Your task to perform on an android device: Open Amazon Image 0: 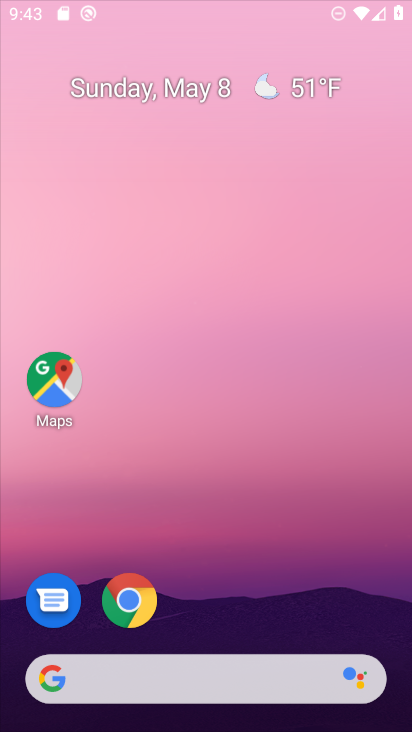
Step 0: drag from (308, 196) to (322, 0)
Your task to perform on an android device: Open Amazon Image 1: 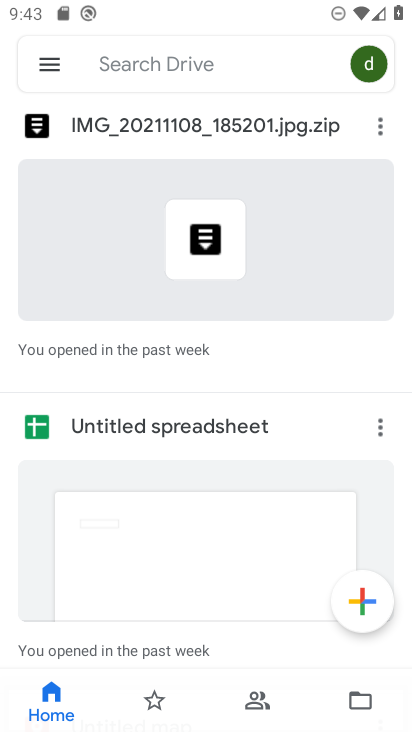
Step 1: press home button
Your task to perform on an android device: Open Amazon Image 2: 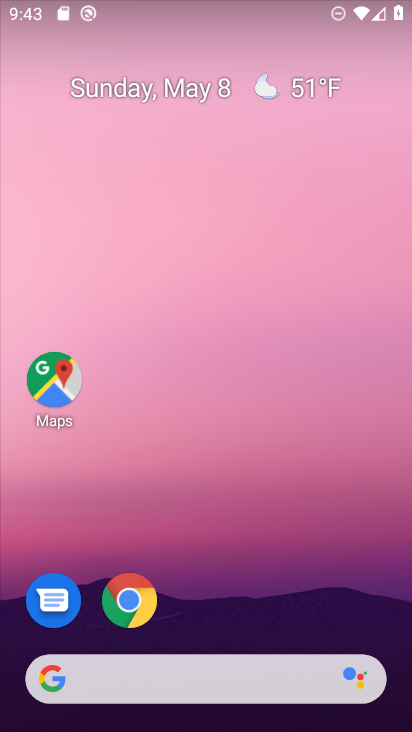
Step 2: click (135, 607)
Your task to perform on an android device: Open Amazon Image 3: 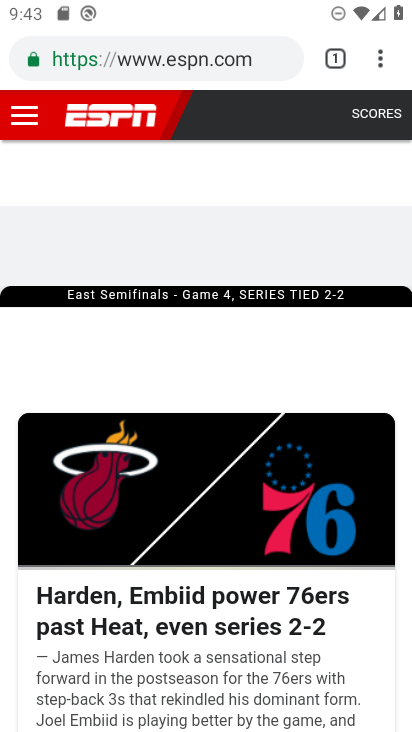
Step 3: click (159, 51)
Your task to perform on an android device: Open Amazon Image 4: 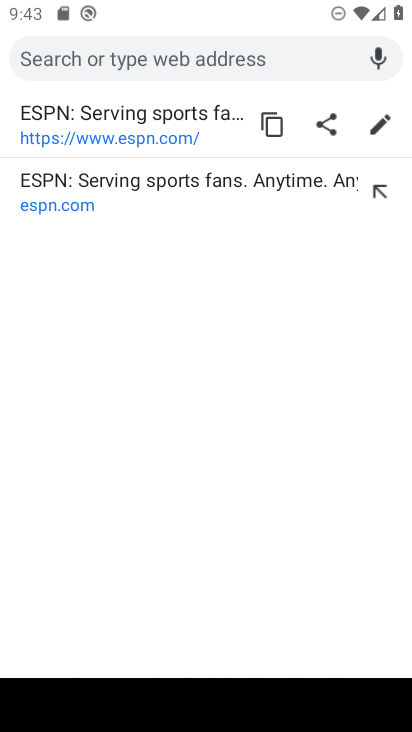
Step 4: type "amazon"
Your task to perform on an android device: Open Amazon Image 5: 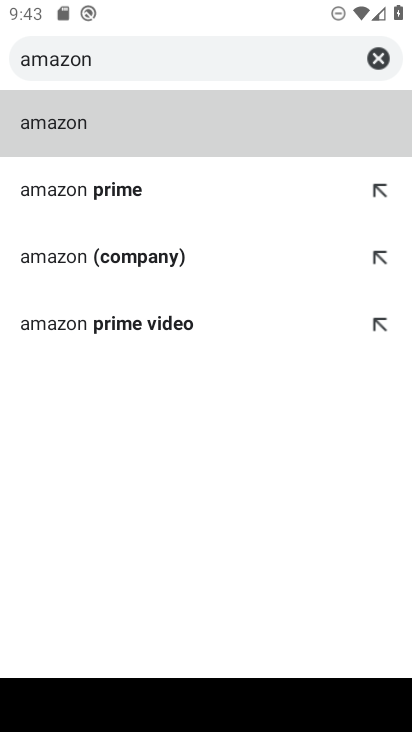
Step 5: click (74, 124)
Your task to perform on an android device: Open Amazon Image 6: 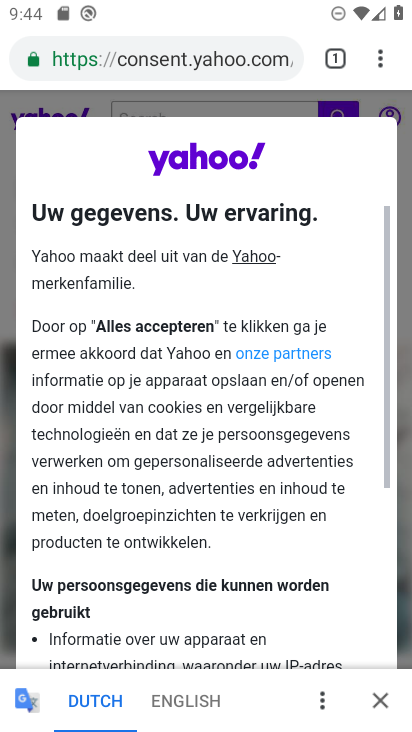
Step 6: click (122, 60)
Your task to perform on an android device: Open Amazon Image 7: 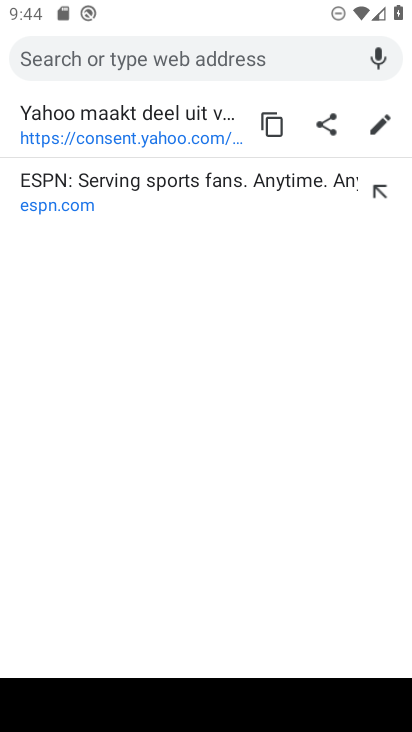
Step 7: type "amazon.com"
Your task to perform on an android device: Open Amazon Image 8: 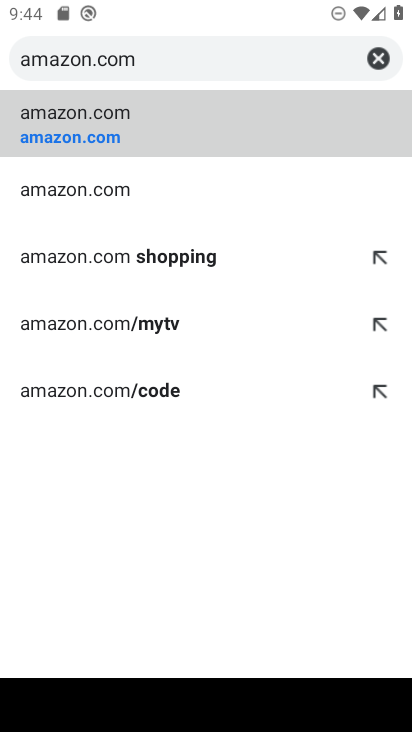
Step 8: click (89, 135)
Your task to perform on an android device: Open Amazon Image 9: 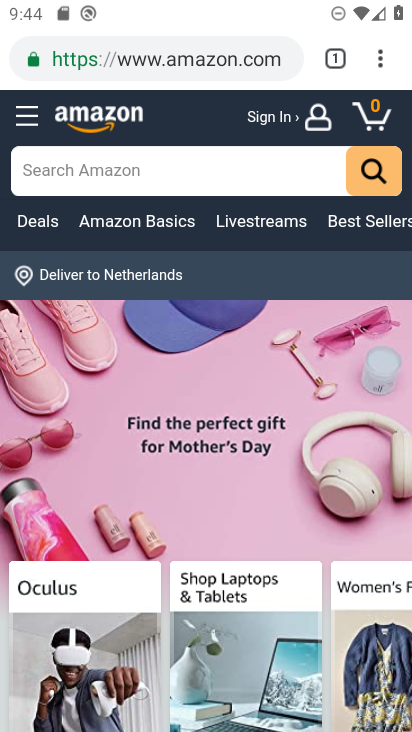
Step 9: task complete